Your task to perform on an android device: Find a good burger place on Maps Image 0: 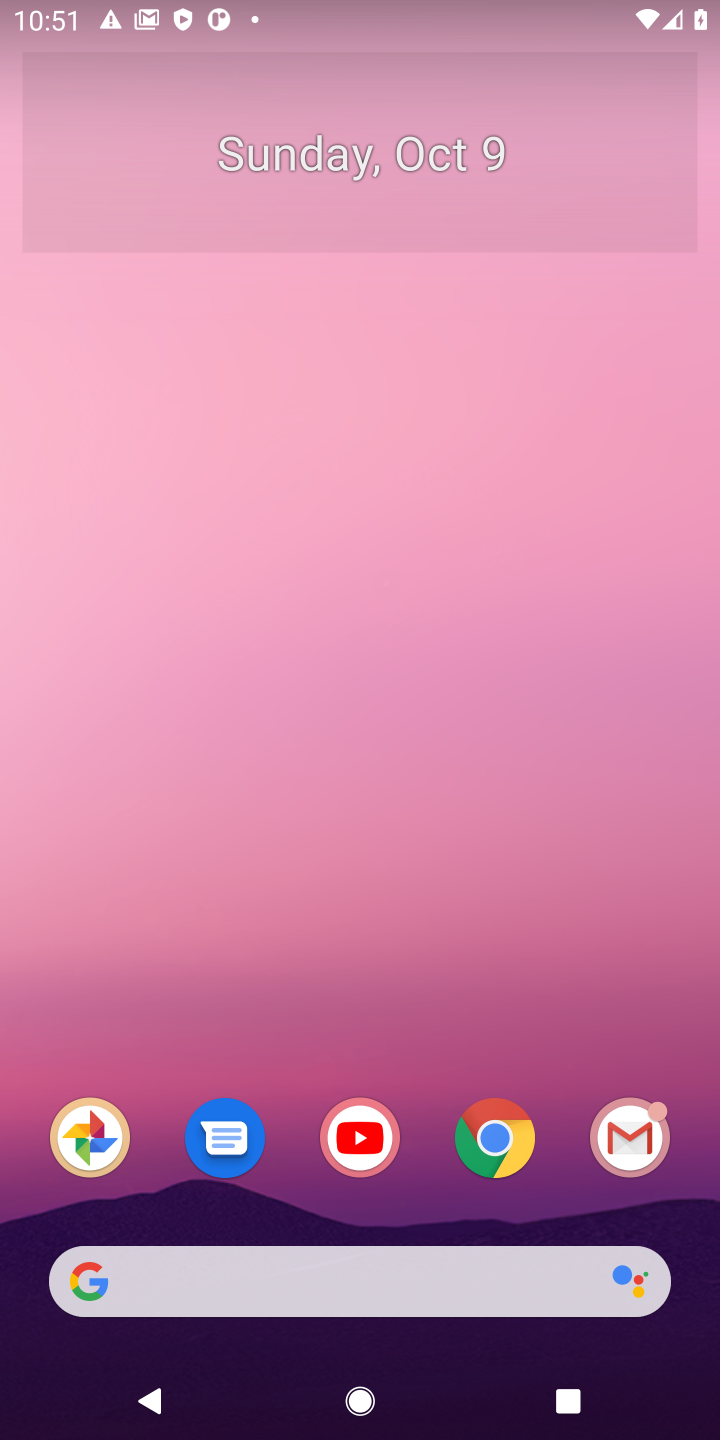
Step 0: click (470, 1135)
Your task to perform on an android device: Find a good burger place on Maps Image 1: 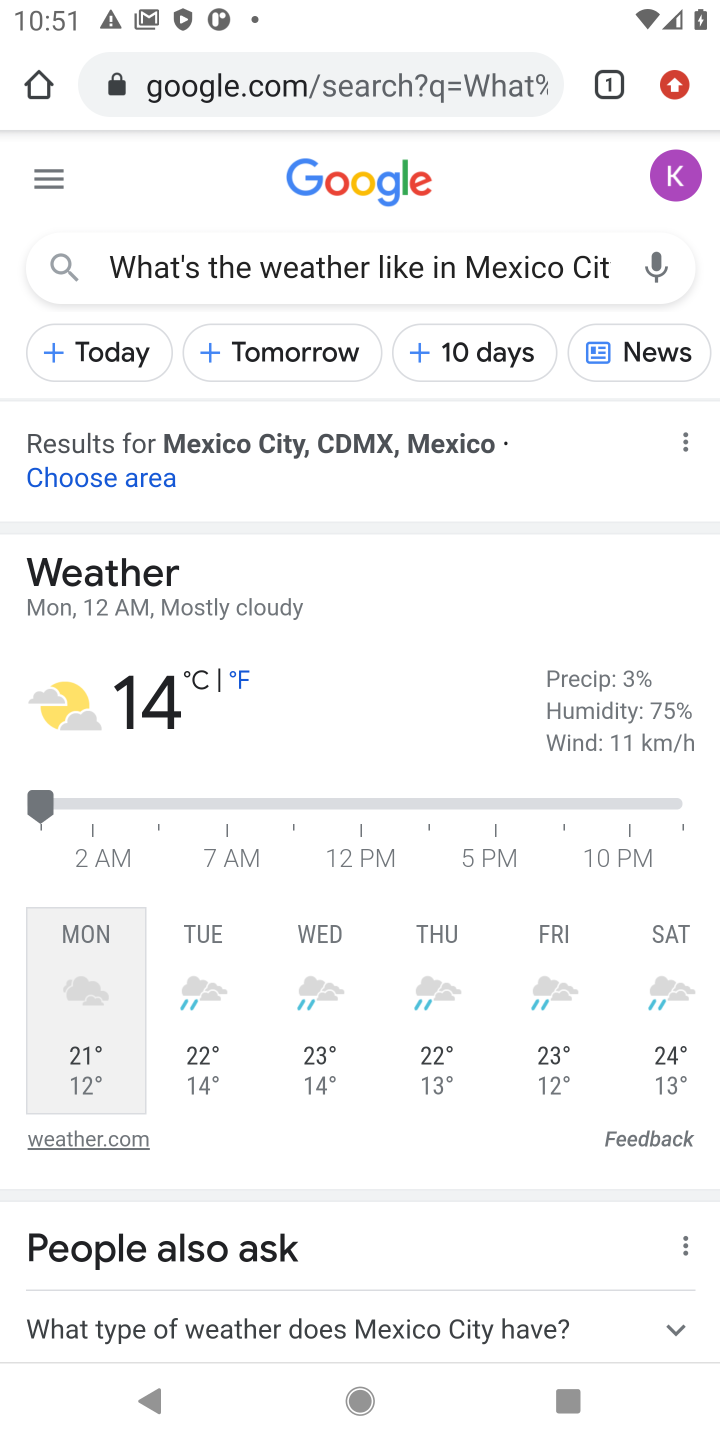
Step 1: click (548, 277)
Your task to perform on an android device: Find a good burger place on Maps Image 2: 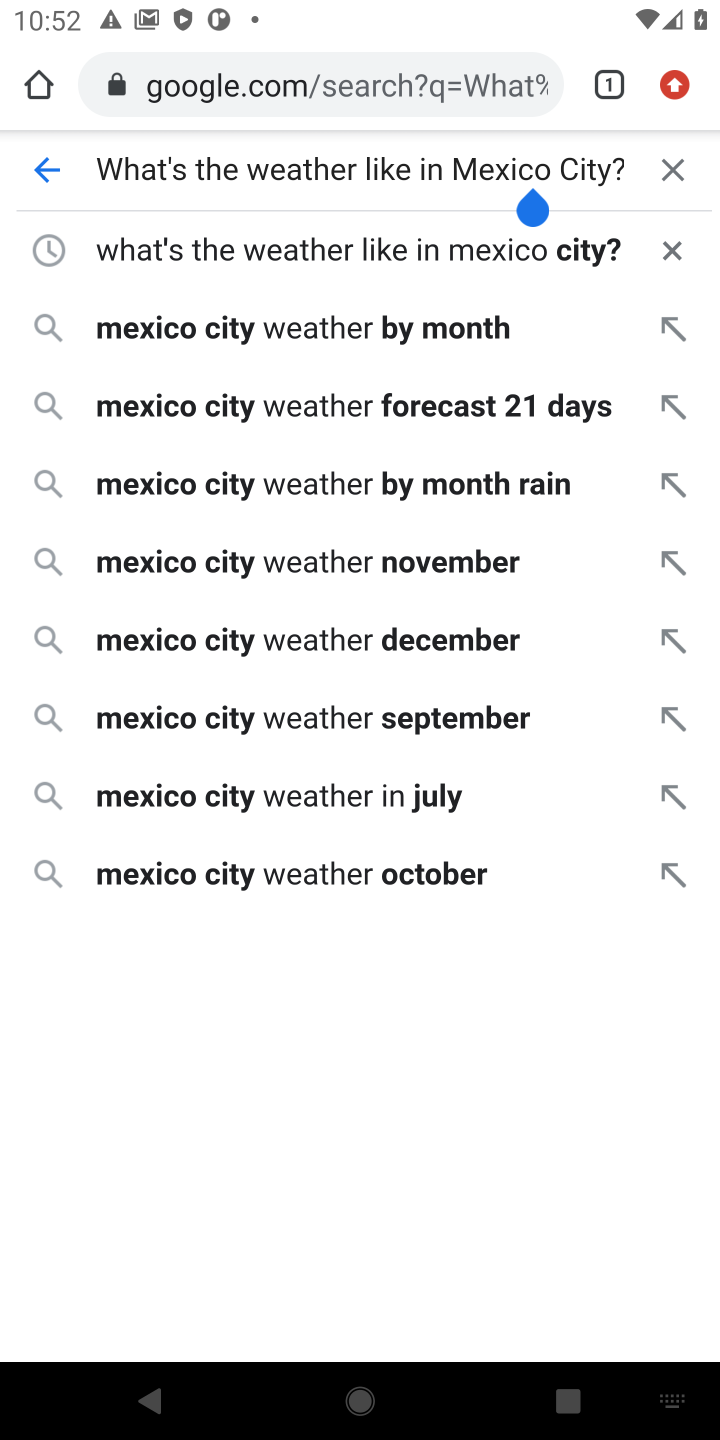
Step 2: click (675, 168)
Your task to perform on an android device: Find a good burger place on Maps Image 3: 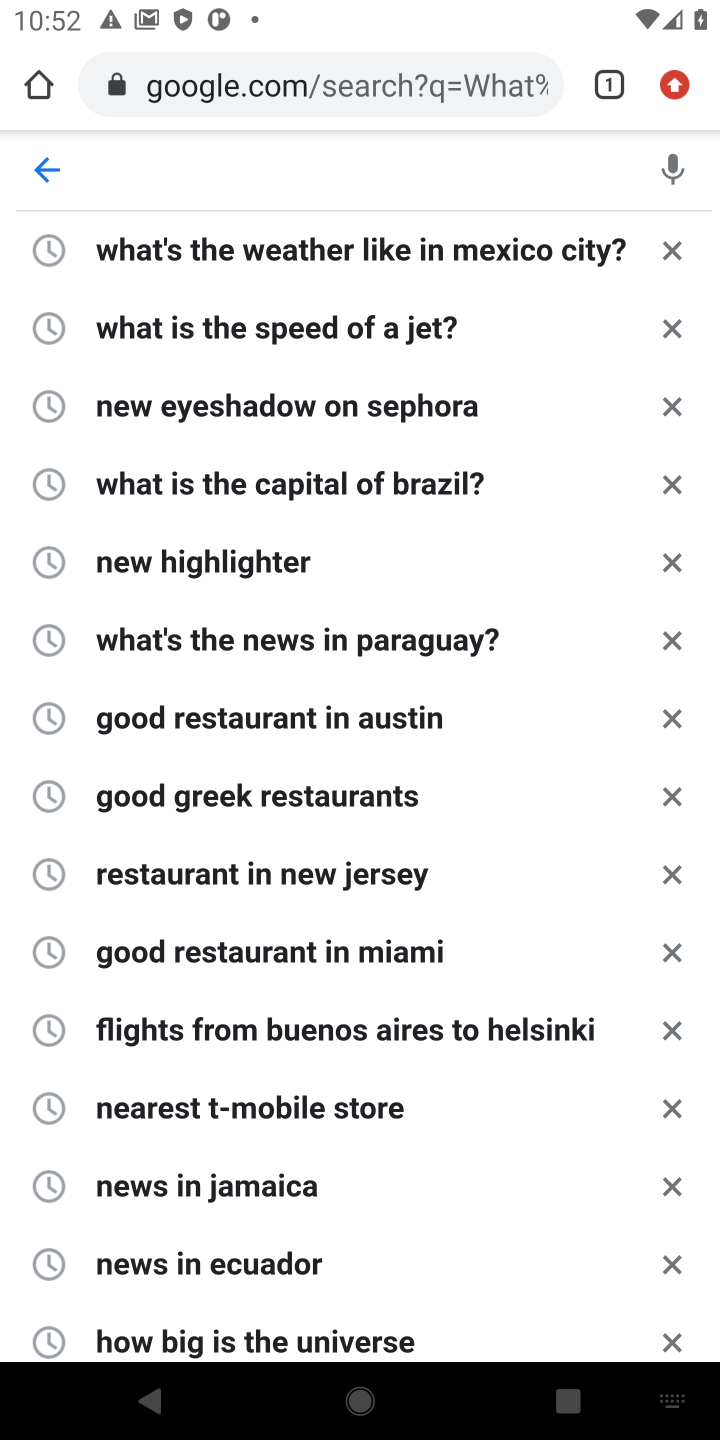
Step 3: type "Find a good burger place on Maps"
Your task to perform on an android device: Find a good burger place on Maps Image 4: 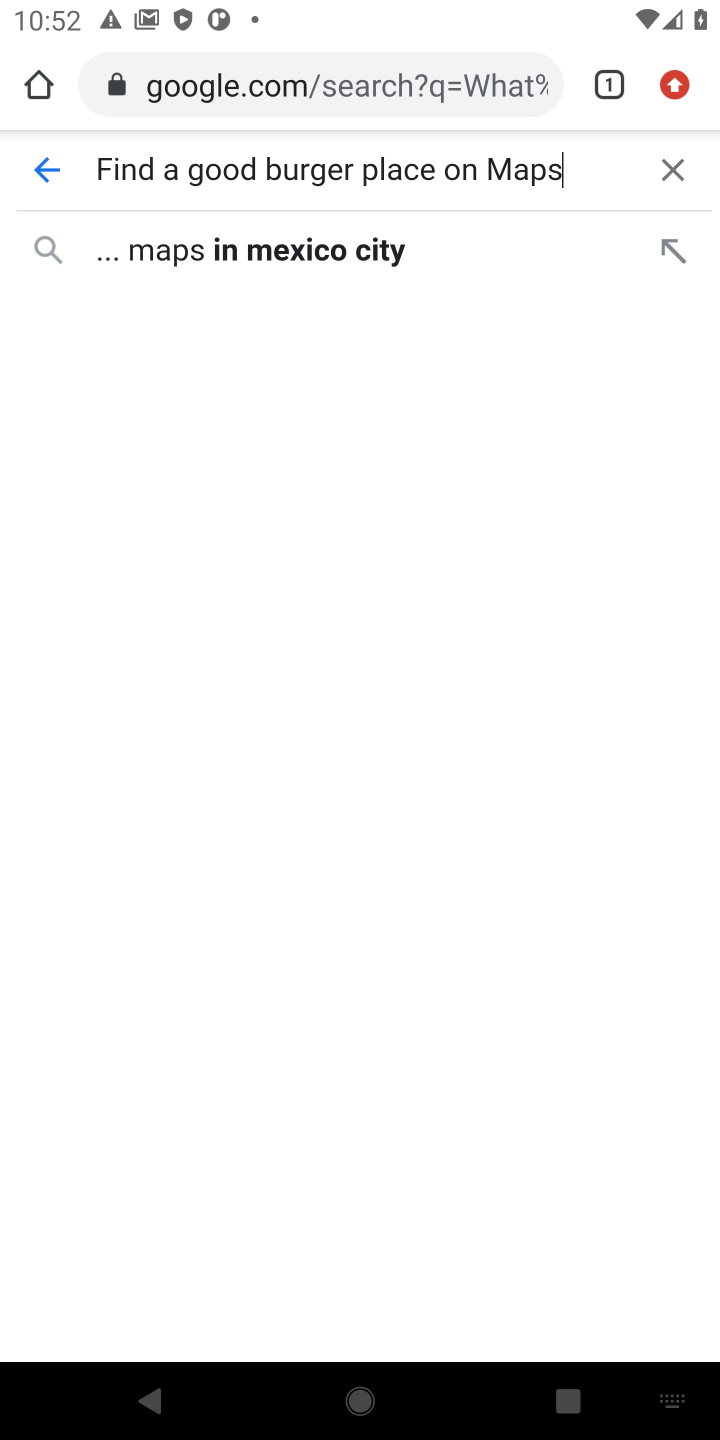
Step 4: press enter
Your task to perform on an android device: Find a good burger place on Maps Image 5: 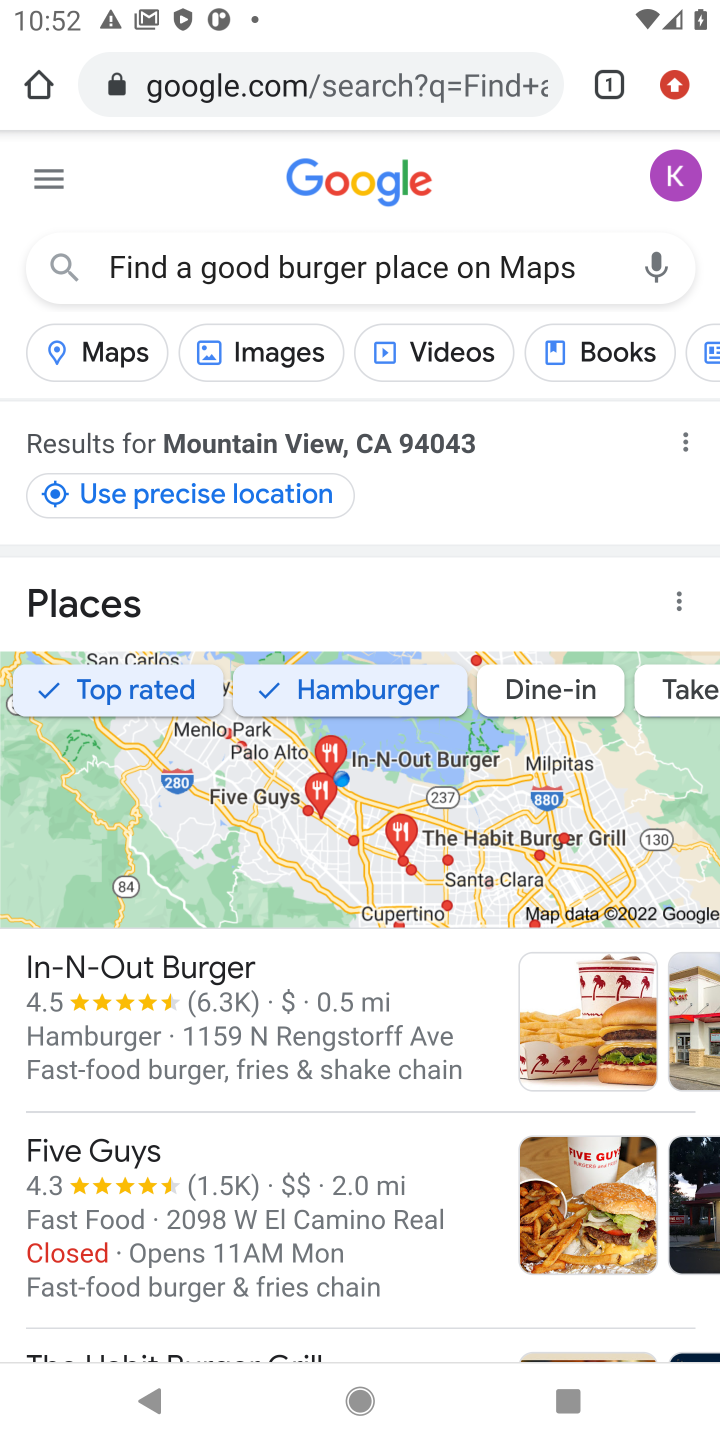
Step 5: task complete